Your task to perform on an android device: Search for bose soundlink on ebay.com, select the first entry, add it to the cart, then select checkout. Image 0: 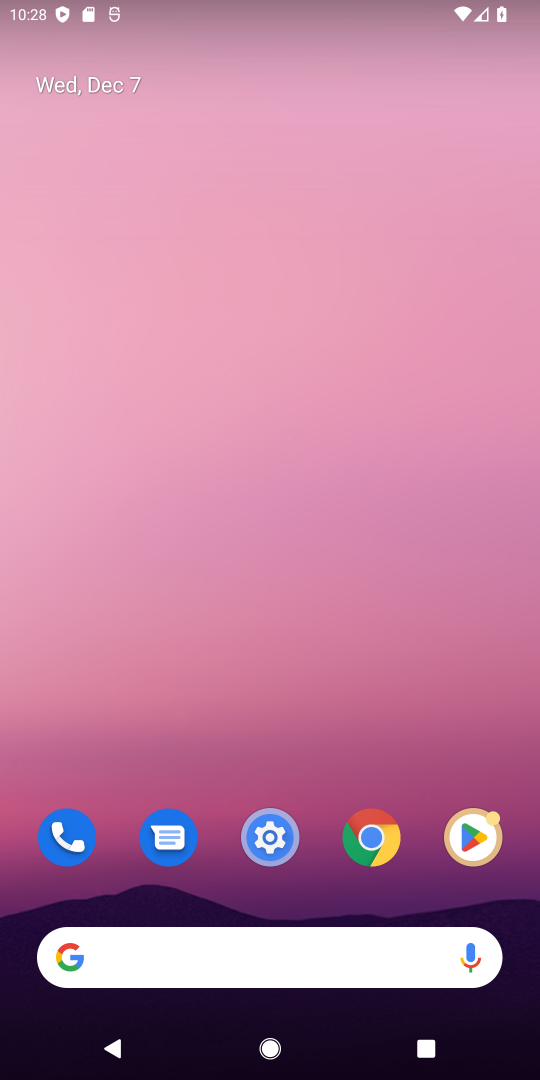
Step 0: click (366, 833)
Your task to perform on an android device: Search for bose soundlink on ebay.com, select the first entry, add it to the cart, then select checkout. Image 1: 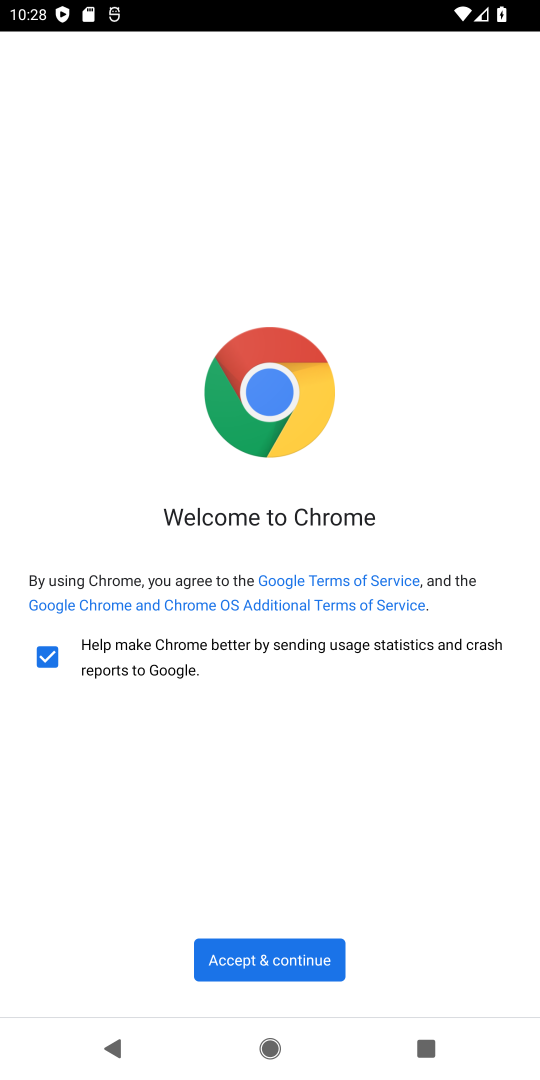
Step 1: click (284, 955)
Your task to perform on an android device: Search for bose soundlink on ebay.com, select the first entry, add it to the cart, then select checkout. Image 2: 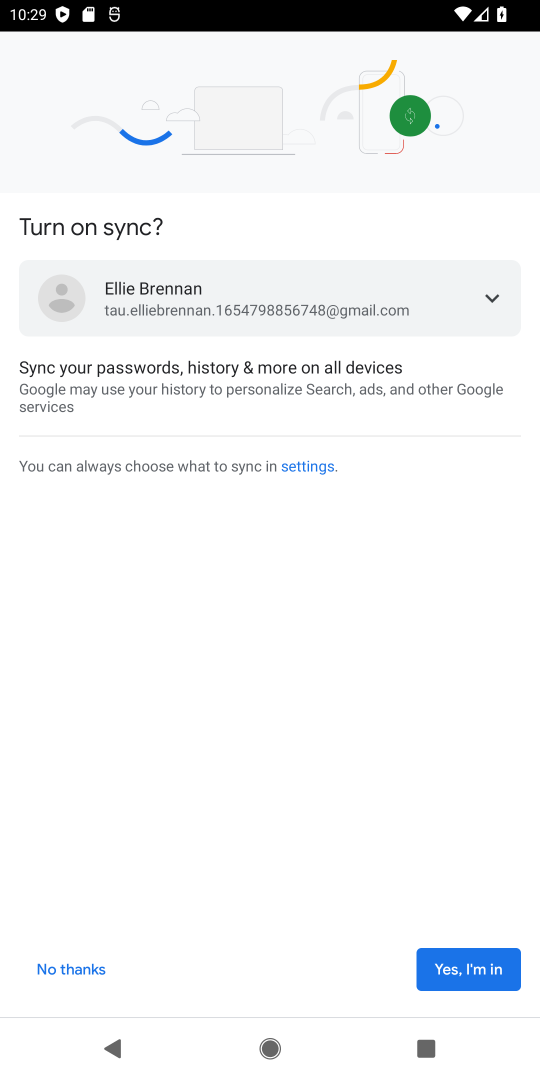
Step 2: click (472, 978)
Your task to perform on an android device: Search for bose soundlink on ebay.com, select the first entry, add it to the cart, then select checkout. Image 3: 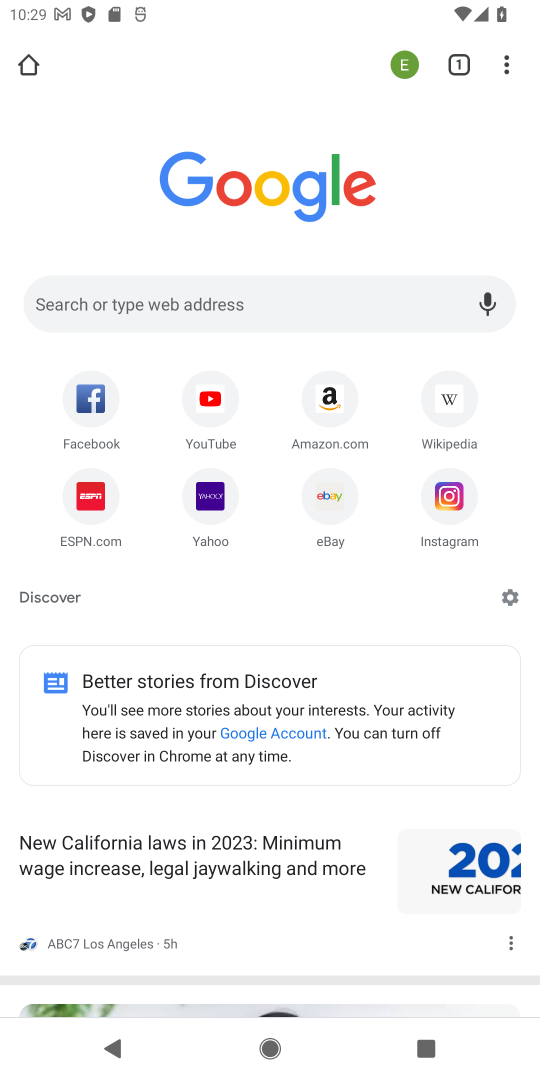
Step 3: click (265, 287)
Your task to perform on an android device: Search for bose soundlink on ebay.com, select the first entry, add it to the cart, then select checkout. Image 4: 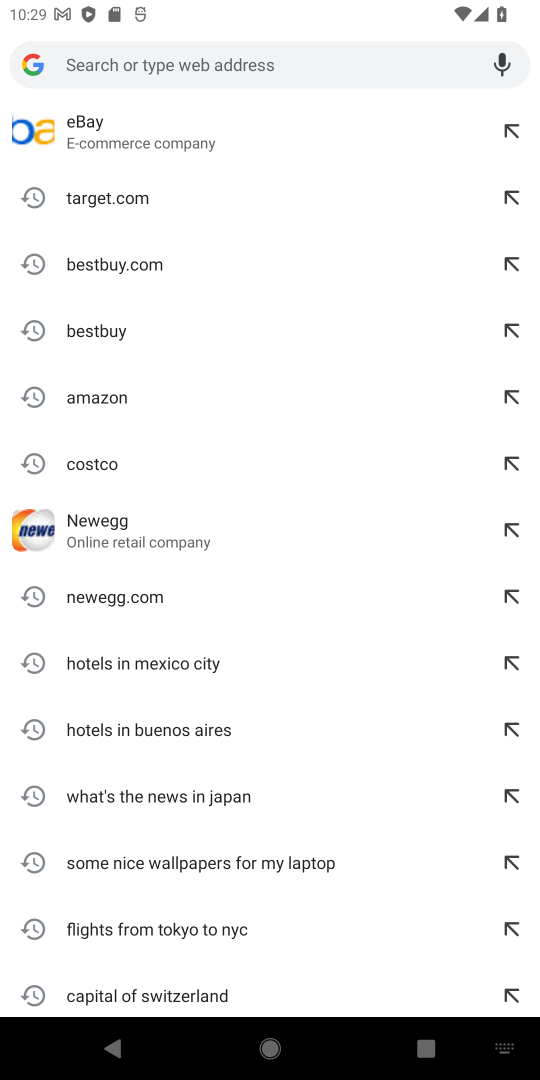
Step 4: type "ebay.com"
Your task to perform on an android device: Search for bose soundlink on ebay.com, select the first entry, add it to the cart, then select checkout. Image 5: 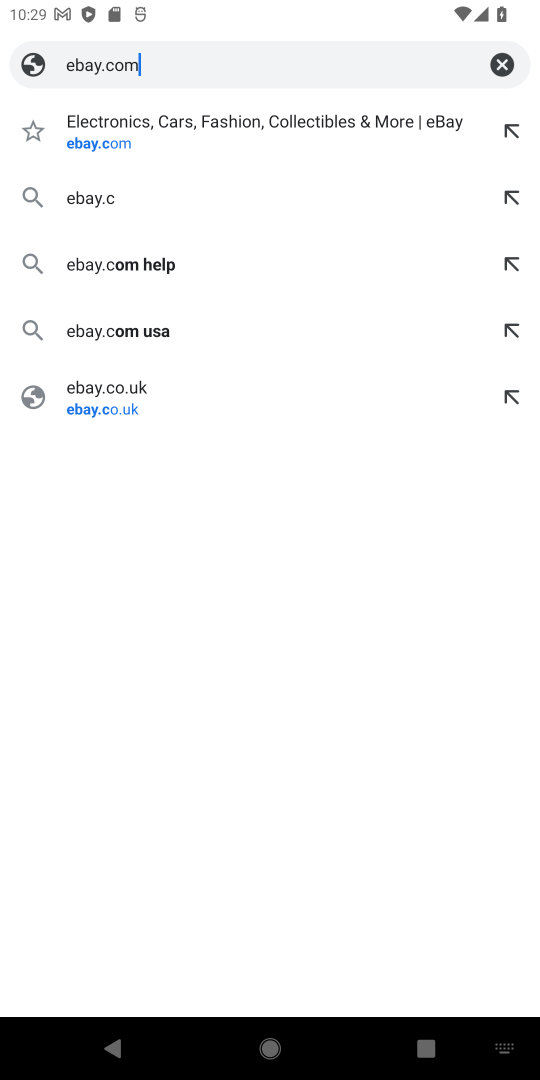
Step 5: press enter
Your task to perform on an android device: Search for bose soundlink on ebay.com, select the first entry, add it to the cart, then select checkout. Image 6: 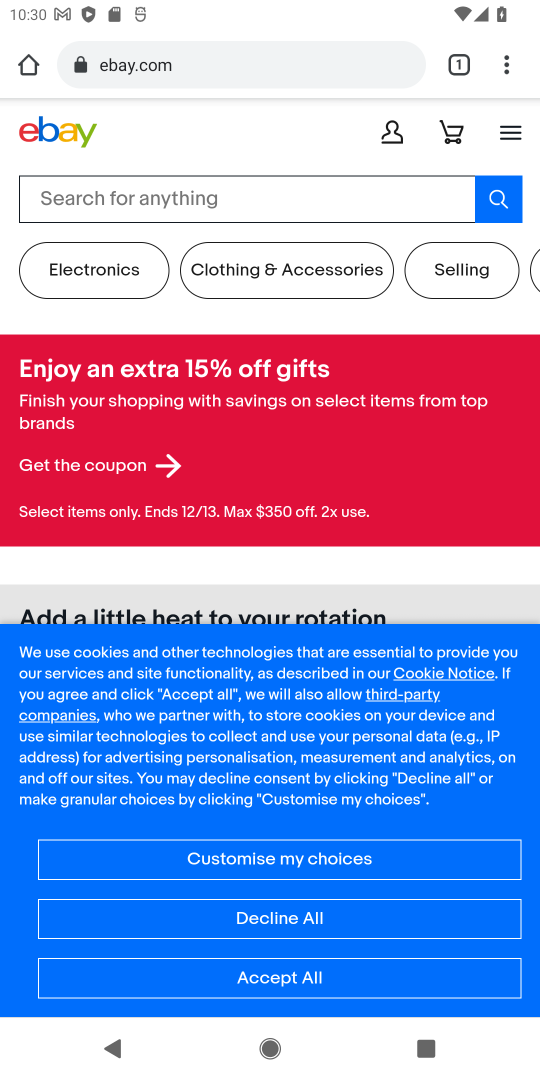
Step 6: click (355, 209)
Your task to perform on an android device: Search for bose soundlink on ebay.com, select the first entry, add it to the cart, then select checkout. Image 7: 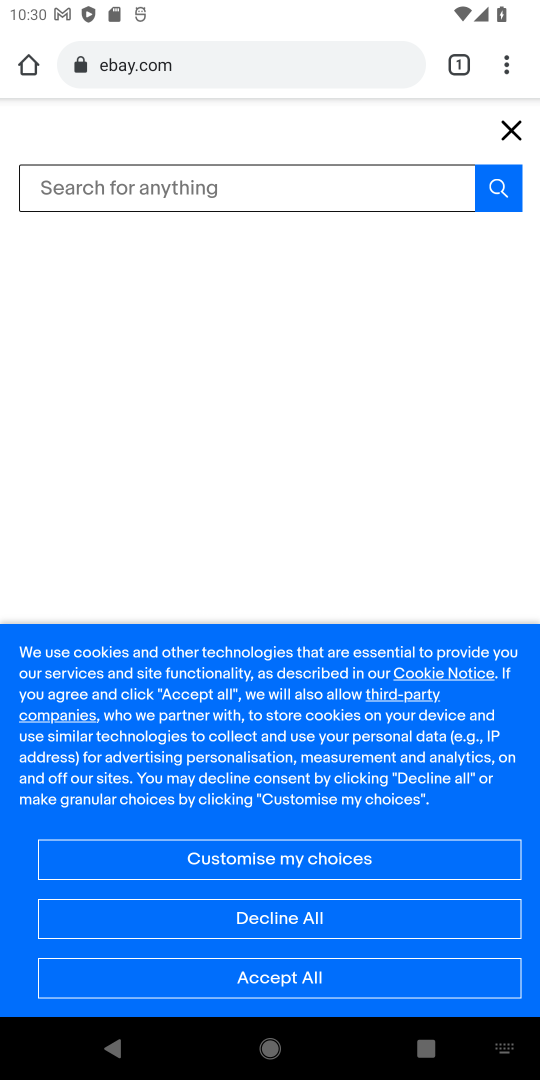
Step 7: type "bose soundlink"
Your task to perform on an android device: Search for bose soundlink on ebay.com, select the first entry, add it to the cart, then select checkout. Image 8: 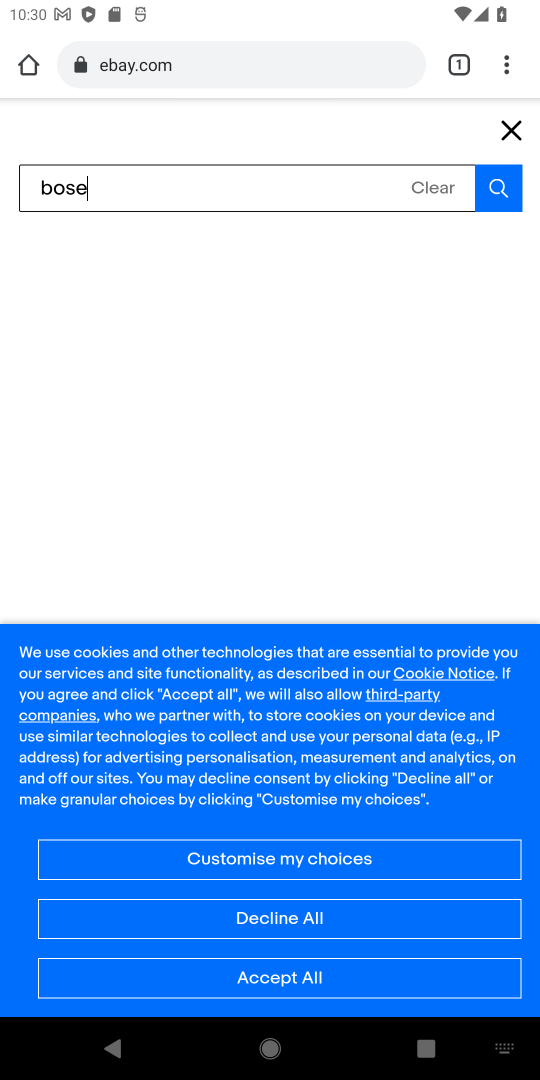
Step 8: press enter
Your task to perform on an android device: Search for bose soundlink on ebay.com, select the first entry, add it to the cart, then select checkout. Image 9: 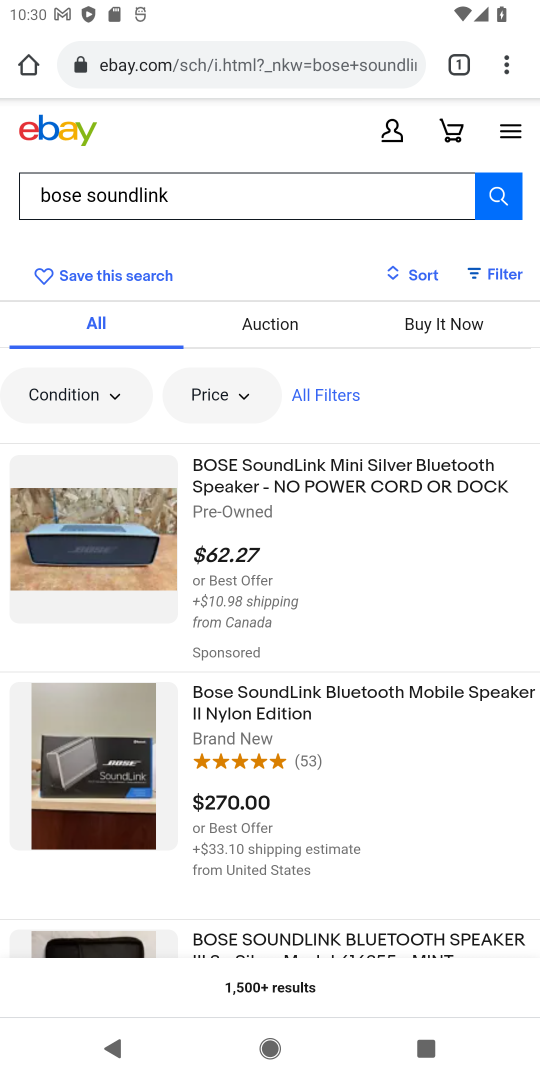
Step 9: click (93, 758)
Your task to perform on an android device: Search for bose soundlink on ebay.com, select the first entry, add it to the cart, then select checkout. Image 10: 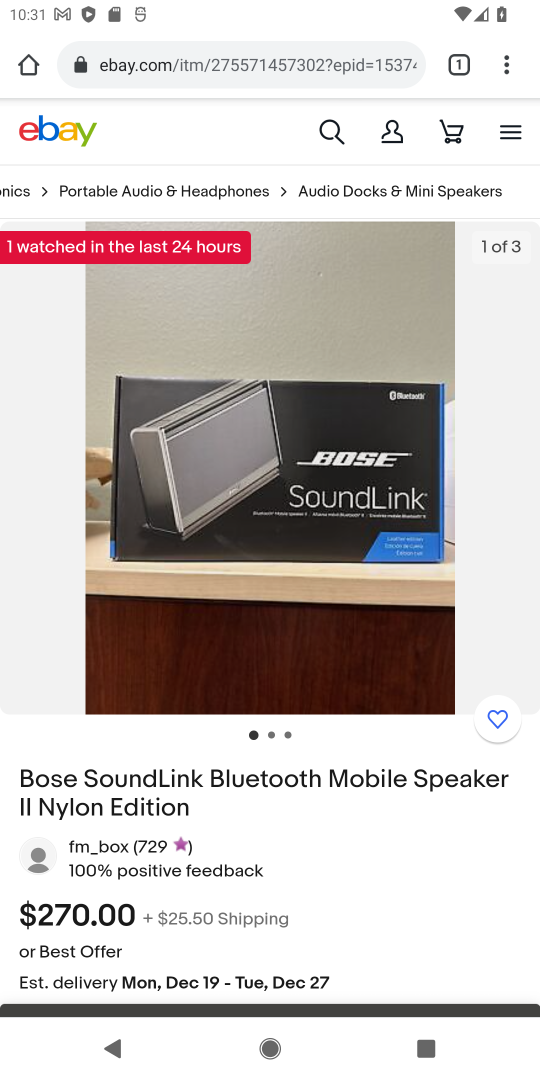
Step 10: press back button
Your task to perform on an android device: Search for bose soundlink on ebay.com, select the first entry, add it to the cart, then select checkout. Image 11: 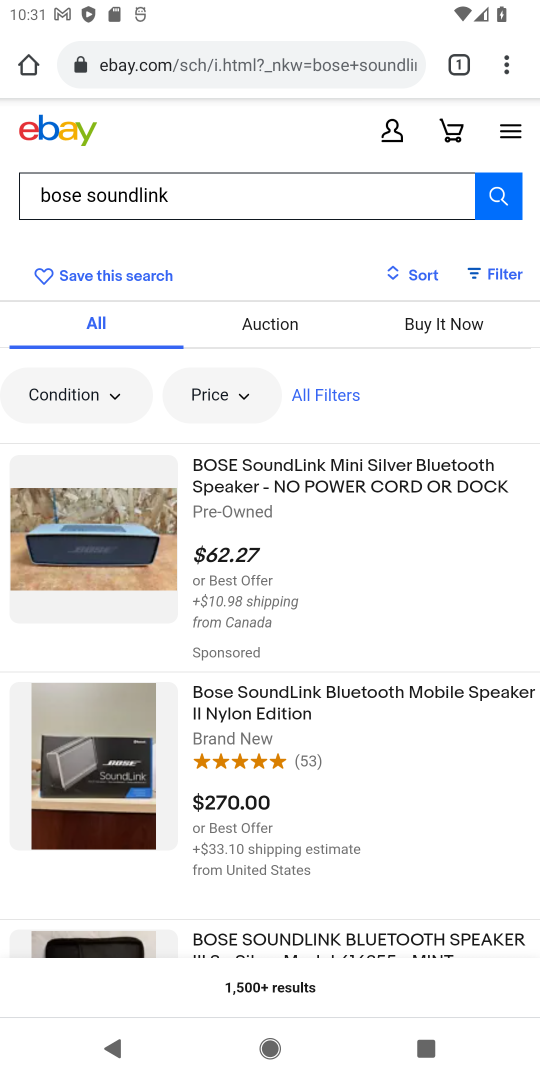
Step 11: drag from (276, 870) to (308, 551)
Your task to perform on an android device: Search for bose soundlink on ebay.com, select the first entry, add it to the cart, then select checkout. Image 12: 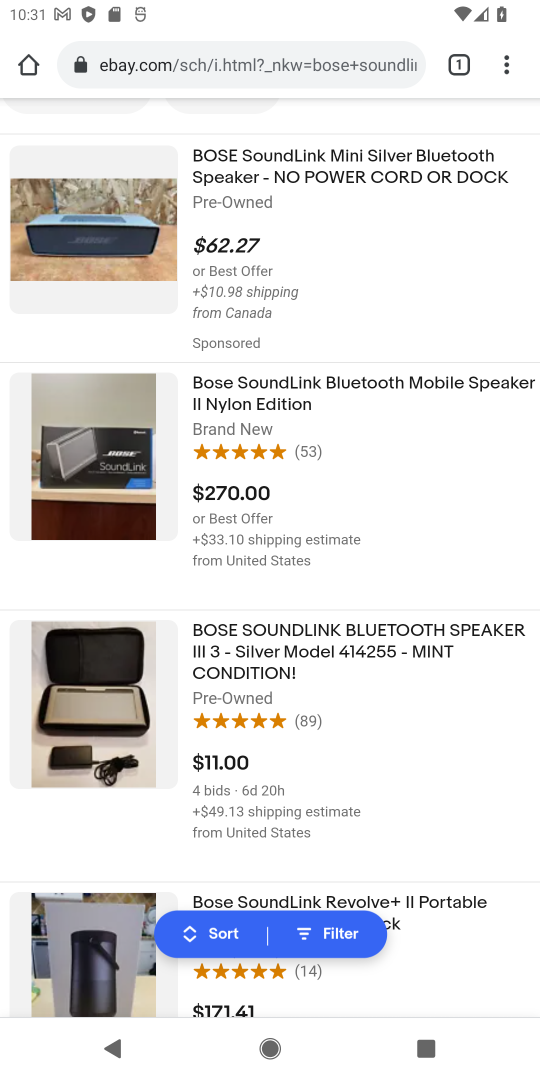
Step 12: click (98, 660)
Your task to perform on an android device: Search for bose soundlink on ebay.com, select the first entry, add it to the cart, then select checkout. Image 13: 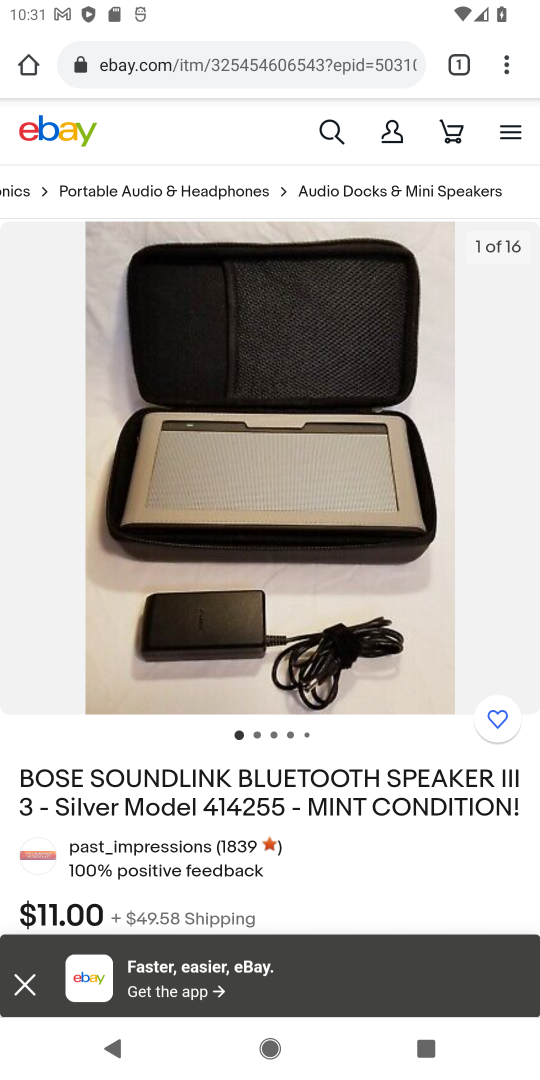
Step 13: press back button
Your task to perform on an android device: Search for bose soundlink on ebay.com, select the first entry, add it to the cart, then select checkout. Image 14: 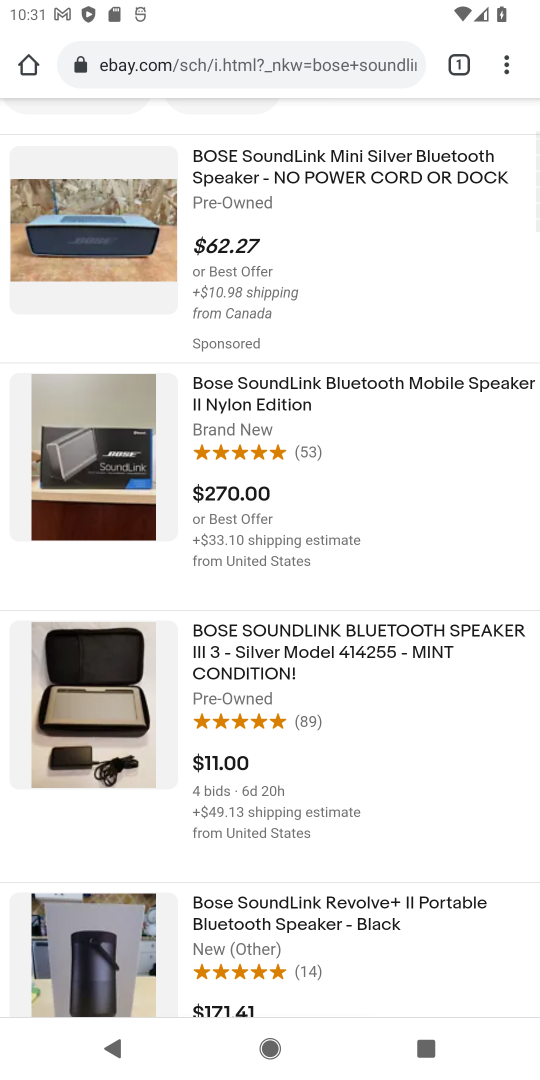
Step 14: click (89, 982)
Your task to perform on an android device: Search for bose soundlink on ebay.com, select the first entry, add it to the cart, then select checkout. Image 15: 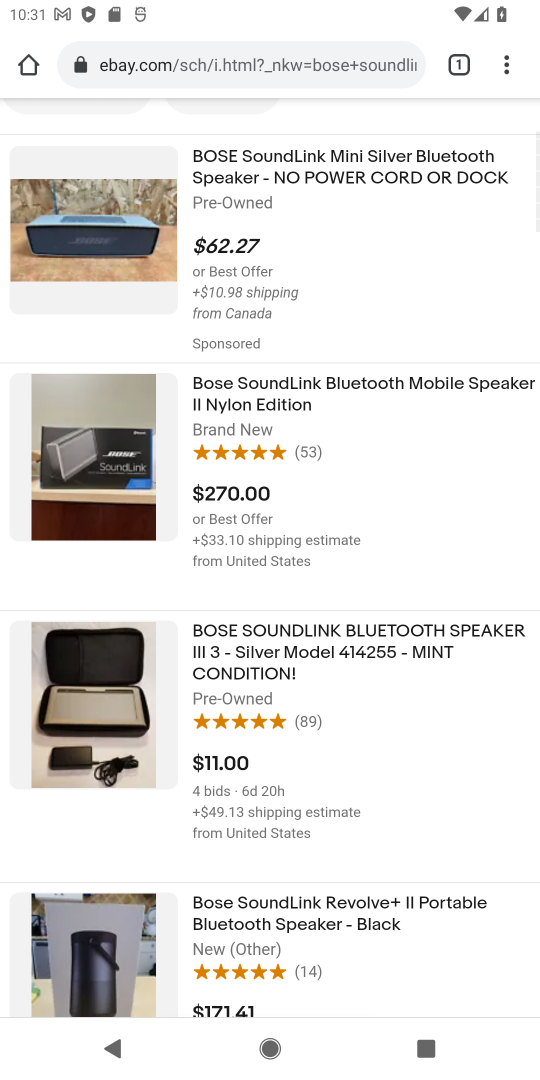
Step 15: drag from (131, 250) to (248, 1045)
Your task to perform on an android device: Search for bose soundlink on ebay.com, select the first entry, add it to the cart, then select checkout. Image 16: 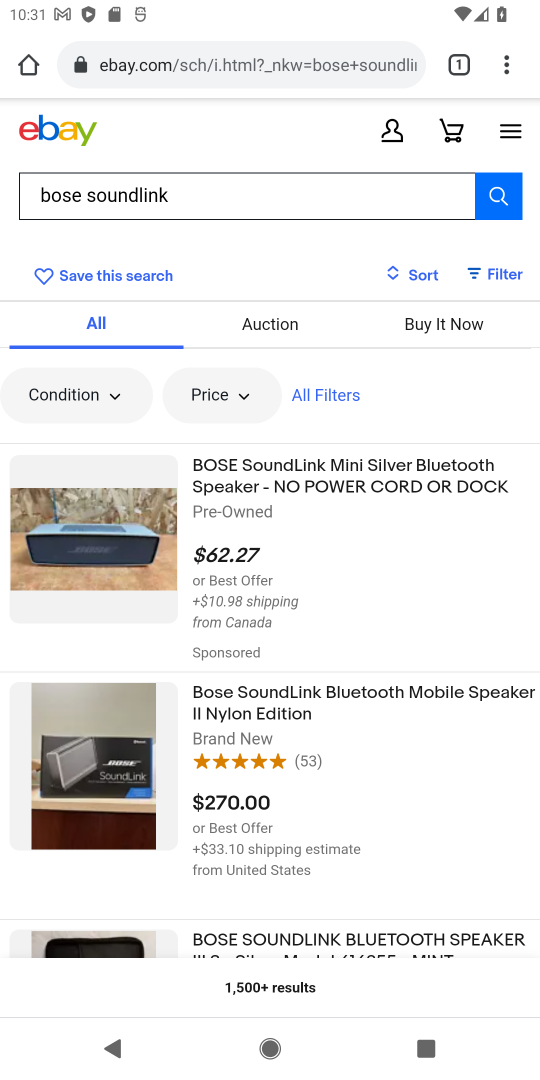
Step 16: click (89, 537)
Your task to perform on an android device: Search for bose soundlink on ebay.com, select the first entry, add it to the cart, then select checkout. Image 17: 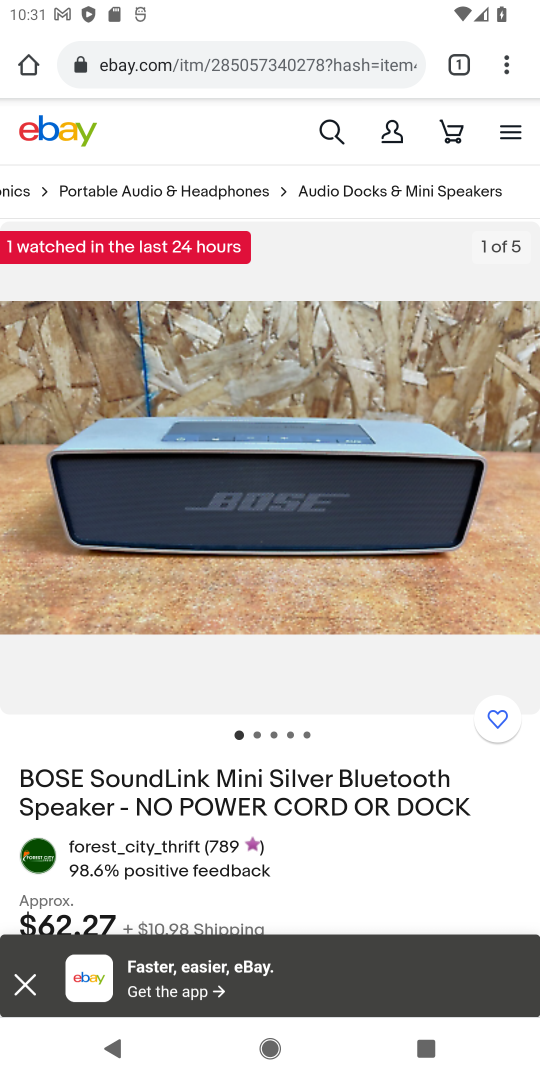
Step 17: drag from (410, 872) to (379, 459)
Your task to perform on an android device: Search for bose soundlink on ebay.com, select the first entry, add it to the cart, then select checkout. Image 18: 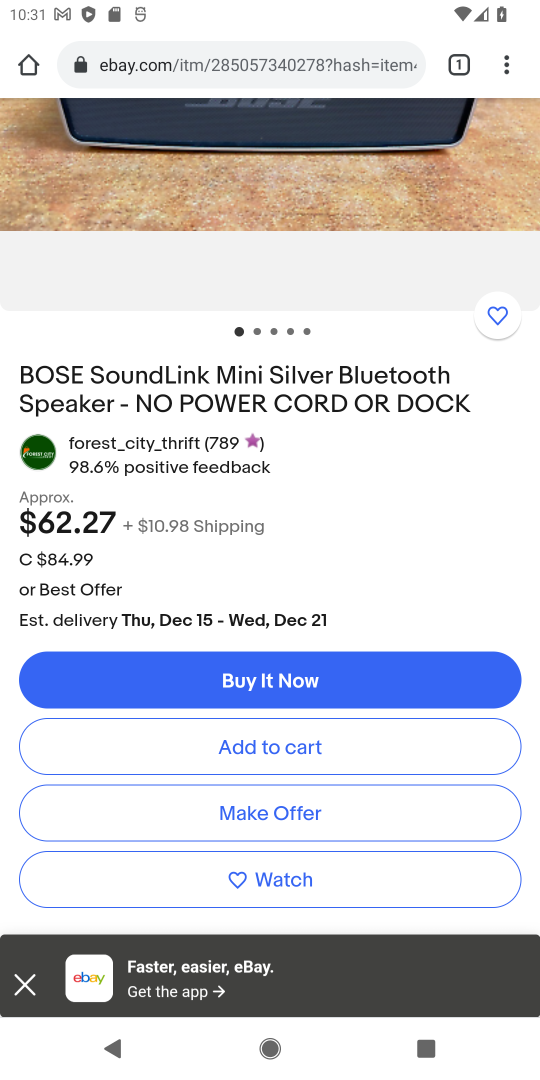
Step 18: click (355, 738)
Your task to perform on an android device: Search for bose soundlink on ebay.com, select the first entry, add it to the cart, then select checkout. Image 19: 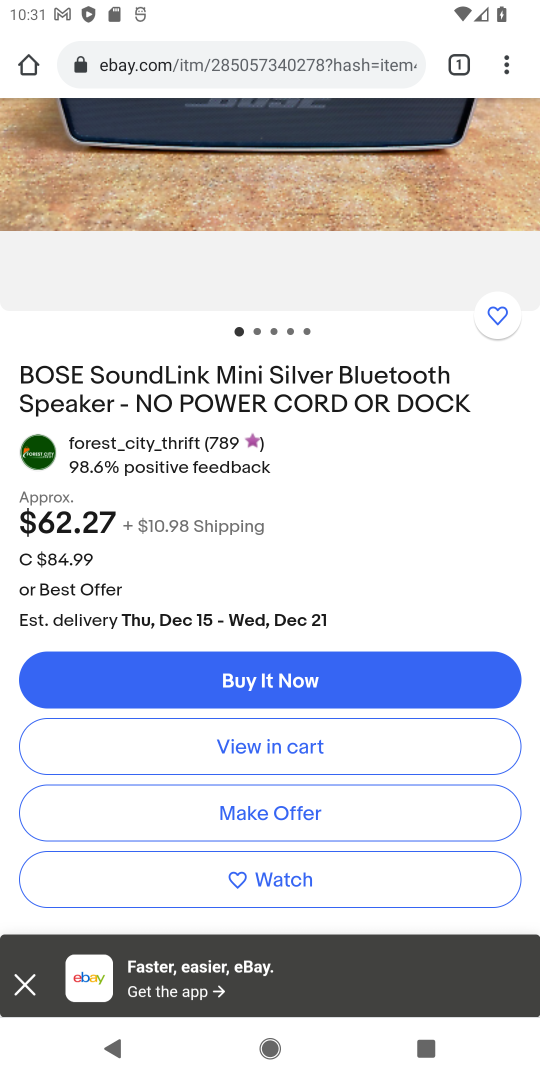
Step 19: click (303, 749)
Your task to perform on an android device: Search for bose soundlink on ebay.com, select the first entry, add it to the cart, then select checkout. Image 20: 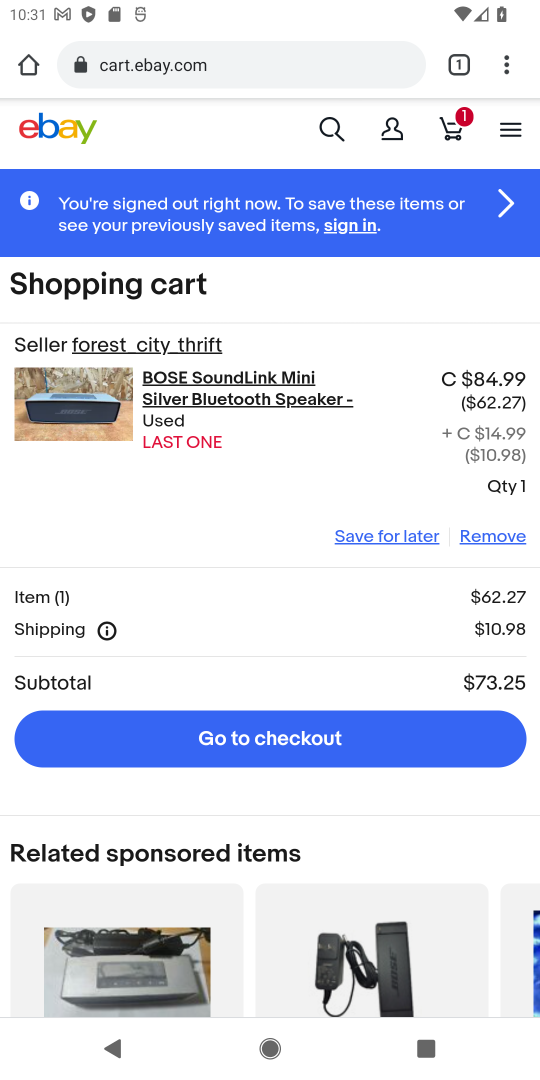
Step 20: click (318, 742)
Your task to perform on an android device: Search for bose soundlink on ebay.com, select the first entry, add it to the cart, then select checkout. Image 21: 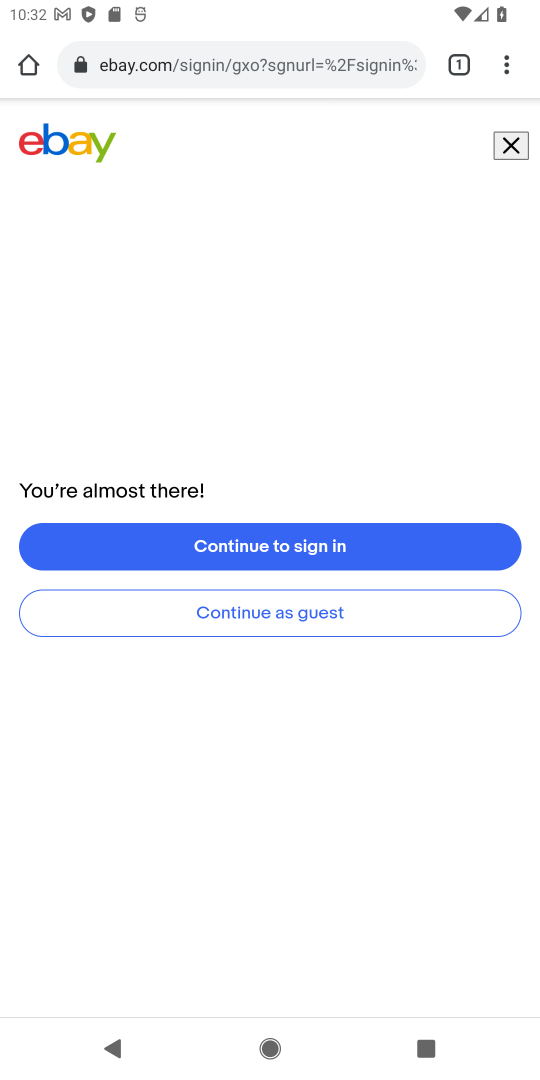
Step 21: task complete